Your task to perform on an android device: open app "Skype" Image 0: 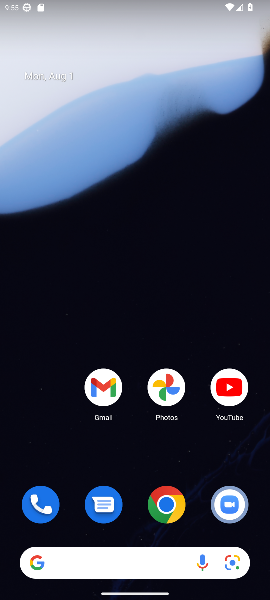
Step 0: press home button
Your task to perform on an android device: open app "Skype" Image 1: 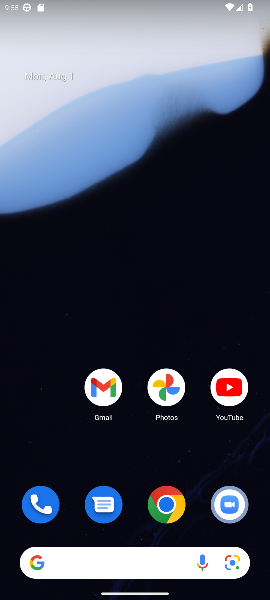
Step 1: drag from (136, 457) to (143, 32)
Your task to perform on an android device: open app "Skype" Image 2: 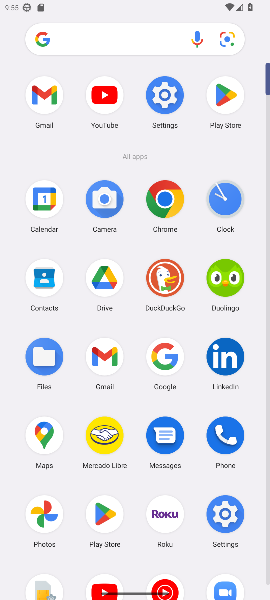
Step 2: click (218, 95)
Your task to perform on an android device: open app "Skype" Image 3: 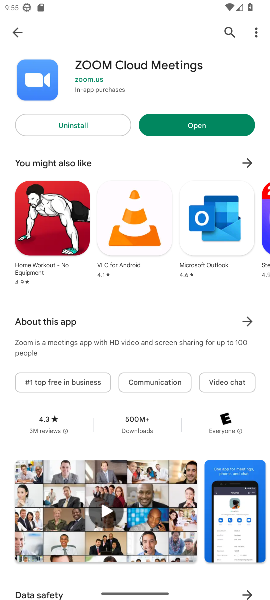
Step 3: click (231, 35)
Your task to perform on an android device: open app "Skype" Image 4: 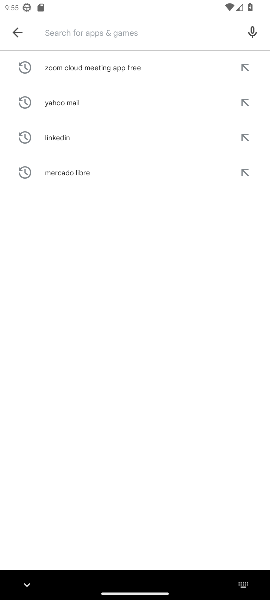
Step 4: type "skype"
Your task to perform on an android device: open app "Skype" Image 5: 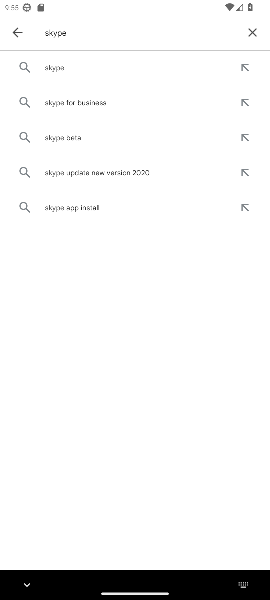
Step 5: click (73, 62)
Your task to perform on an android device: open app "Skype" Image 6: 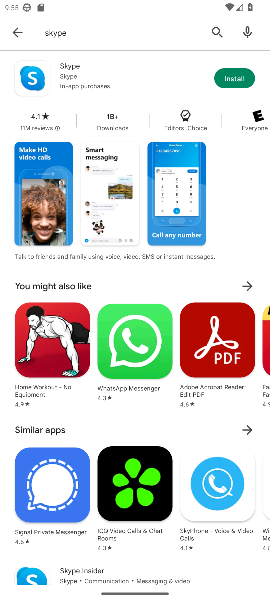
Step 6: click (134, 67)
Your task to perform on an android device: open app "Skype" Image 7: 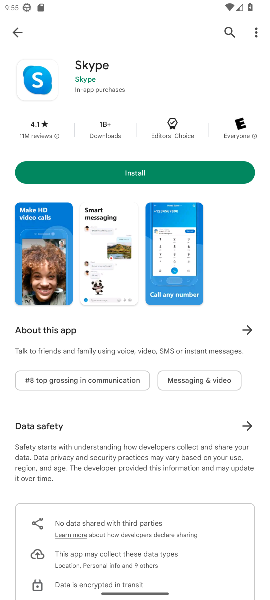
Step 7: task complete